Your task to perform on an android device: Go to Yahoo.com Image 0: 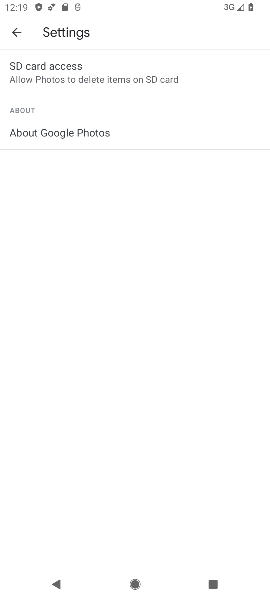
Step 0: press home button
Your task to perform on an android device: Go to Yahoo.com Image 1: 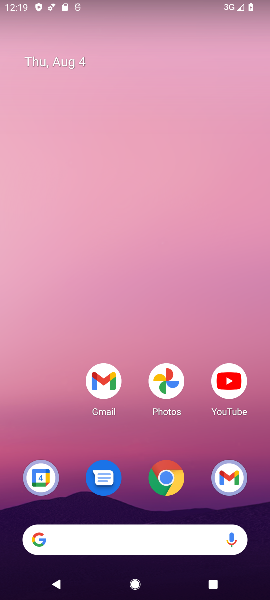
Step 1: drag from (147, 492) to (233, 44)
Your task to perform on an android device: Go to Yahoo.com Image 2: 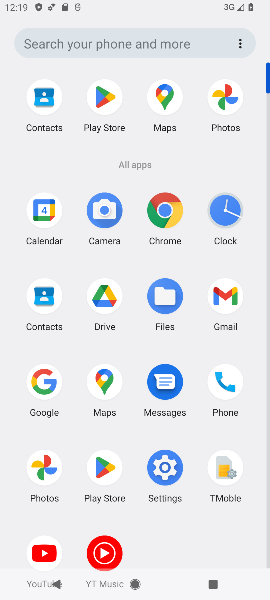
Step 2: click (164, 198)
Your task to perform on an android device: Go to Yahoo.com Image 3: 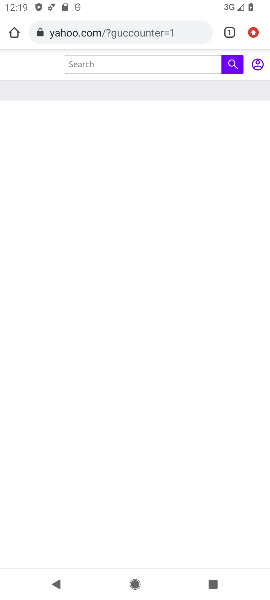
Step 3: click (66, 34)
Your task to perform on an android device: Go to Yahoo.com Image 4: 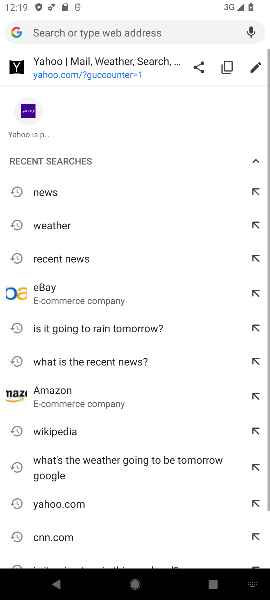
Step 4: task complete